Your task to perform on an android device: Open sound settings Image 0: 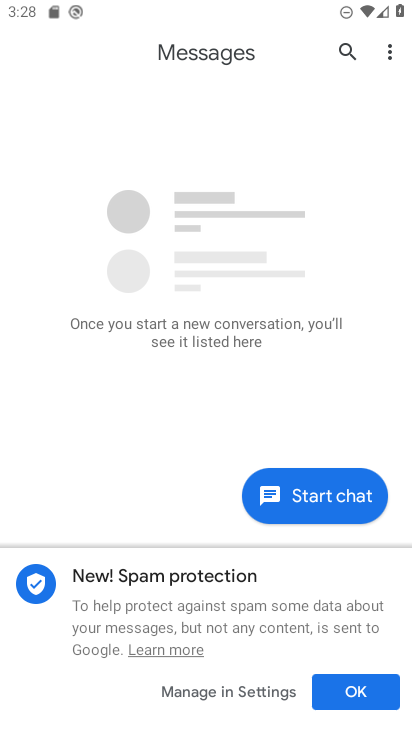
Step 0: press home button
Your task to perform on an android device: Open sound settings Image 1: 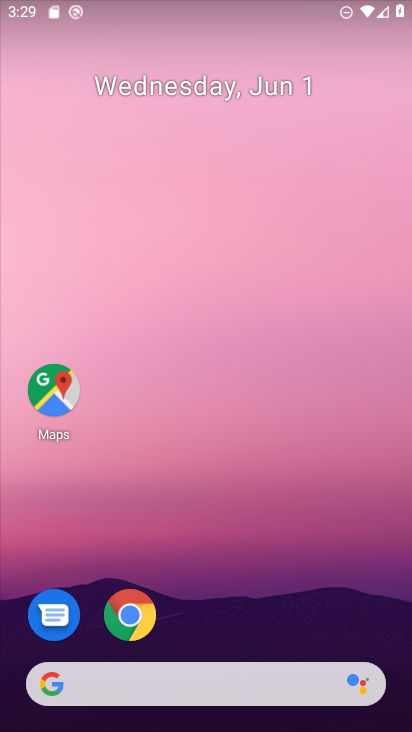
Step 1: drag from (223, 642) to (210, 77)
Your task to perform on an android device: Open sound settings Image 2: 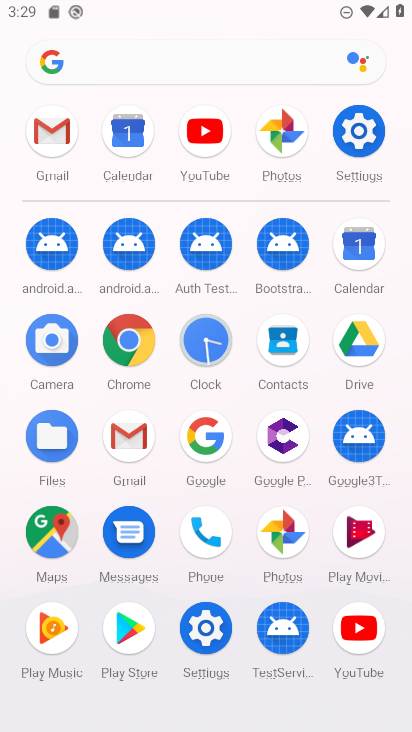
Step 2: click (358, 124)
Your task to perform on an android device: Open sound settings Image 3: 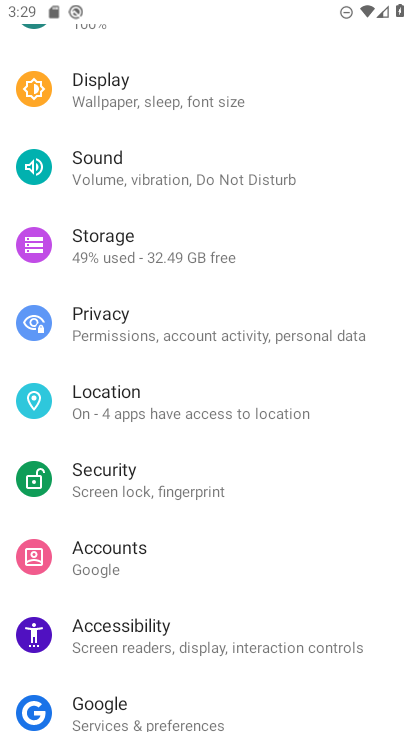
Step 3: drag from (139, 107) to (170, 470)
Your task to perform on an android device: Open sound settings Image 4: 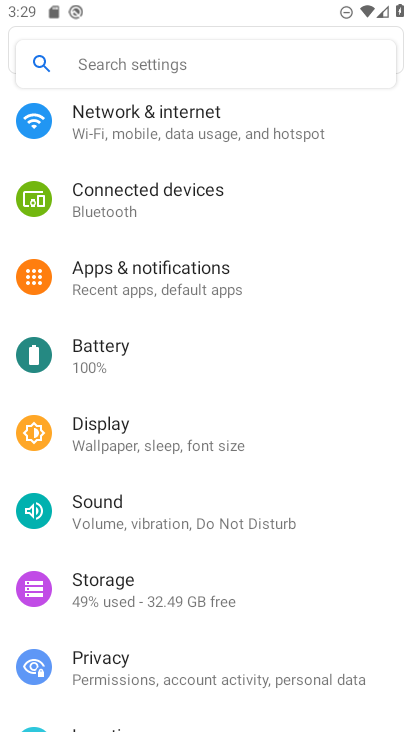
Step 4: click (142, 499)
Your task to perform on an android device: Open sound settings Image 5: 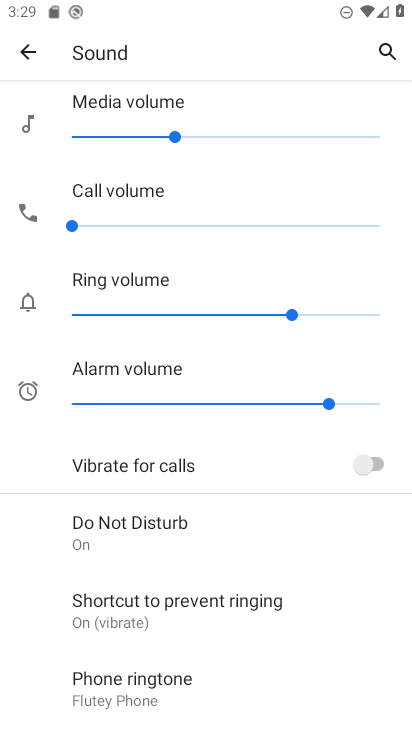
Step 5: drag from (221, 612) to (222, 233)
Your task to perform on an android device: Open sound settings Image 6: 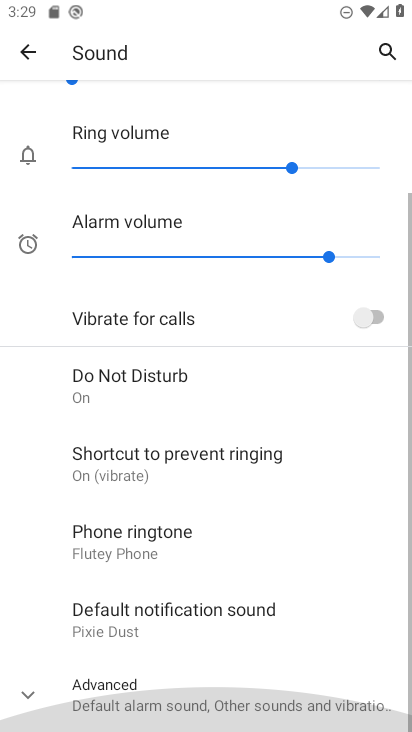
Step 6: click (222, 132)
Your task to perform on an android device: Open sound settings Image 7: 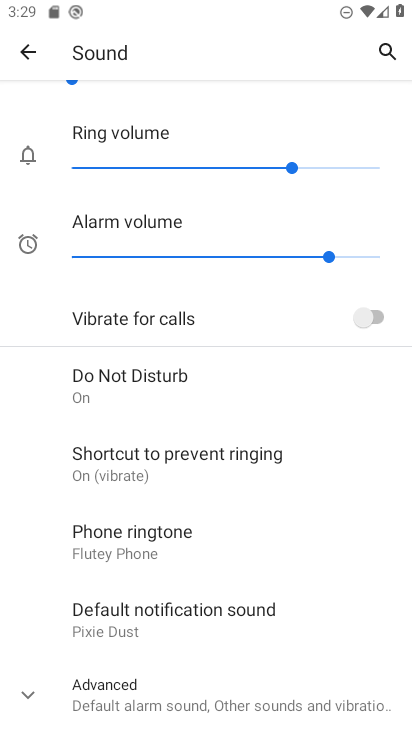
Step 7: task complete